Your task to perform on an android device: Search for "asus zenbook" on ebay.com, select the first entry, and add it to the cart. Image 0: 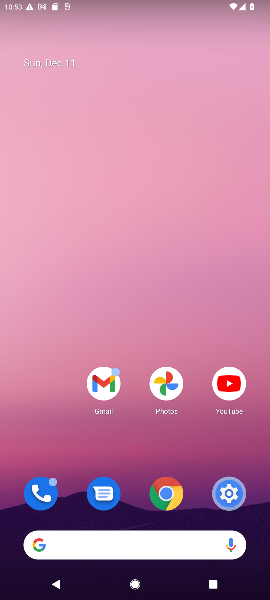
Step 0: click (123, 533)
Your task to perform on an android device: Search for "asus zenbook" on ebay.com, select the first entry, and add it to the cart. Image 1: 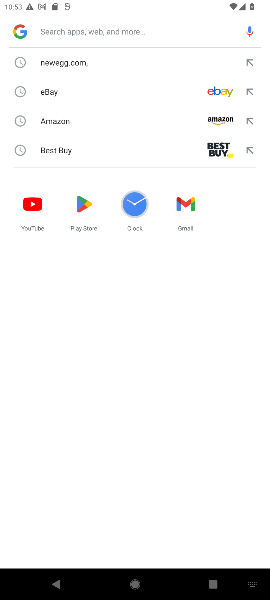
Step 1: type "ebay.com"
Your task to perform on an android device: Search for "asus zenbook" on ebay.com, select the first entry, and add it to the cart. Image 2: 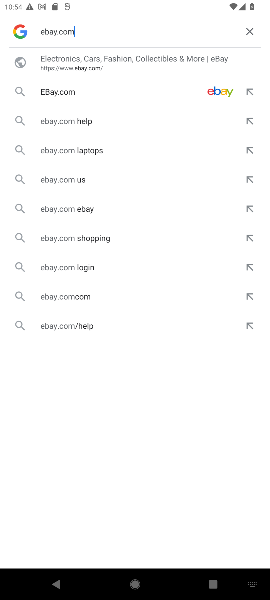
Step 2: click (87, 57)
Your task to perform on an android device: Search for "asus zenbook" on ebay.com, select the first entry, and add it to the cart. Image 3: 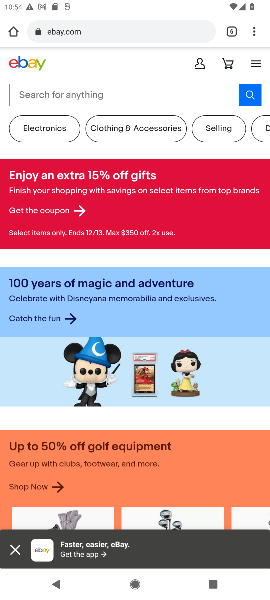
Step 3: click (118, 96)
Your task to perform on an android device: Search for "asus zenbook" on ebay.com, select the first entry, and add it to the cart. Image 4: 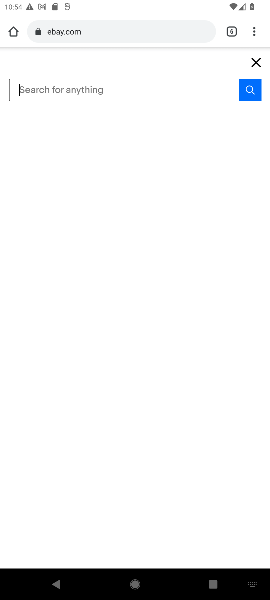
Step 4: type "asus zenbook"
Your task to perform on an android device: Search for "asus zenbook" on ebay.com, select the first entry, and add it to the cart. Image 5: 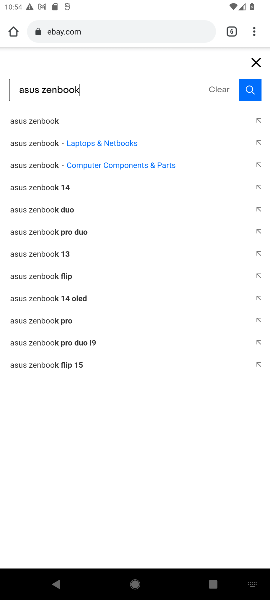
Step 5: click (244, 97)
Your task to perform on an android device: Search for "asus zenbook" on ebay.com, select the first entry, and add it to the cart. Image 6: 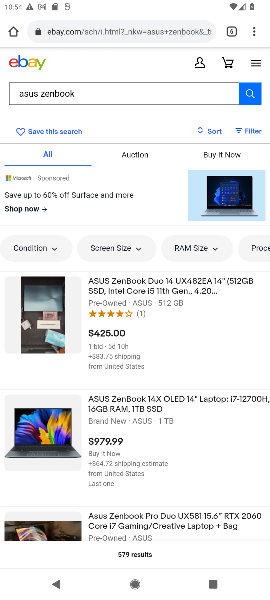
Step 6: click (108, 298)
Your task to perform on an android device: Search for "asus zenbook" on ebay.com, select the first entry, and add it to the cart. Image 7: 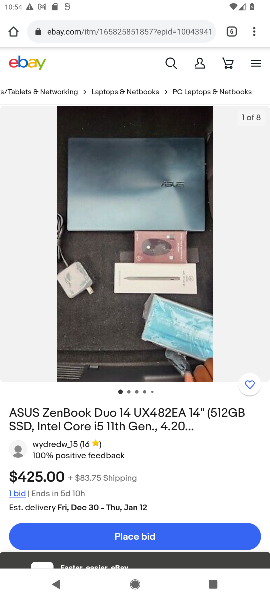
Step 7: drag from (160, 474) to (158, 317)
Your task to perform on an android device: Search for "asus zenbook" on ebay.com, select the first entry, and add it to the cart. Image 8: 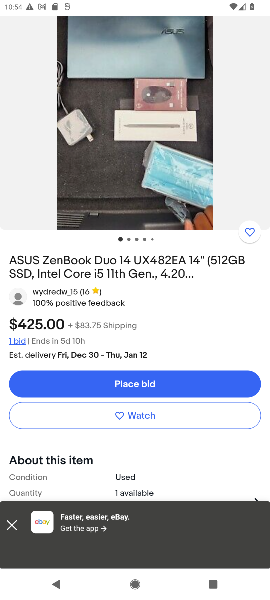
Step 8: click (205, 393)
Your task to perform on an android device: Search for "asus zenbook" on ebay.com, select the first entry, and add it to the cart. Image 9: 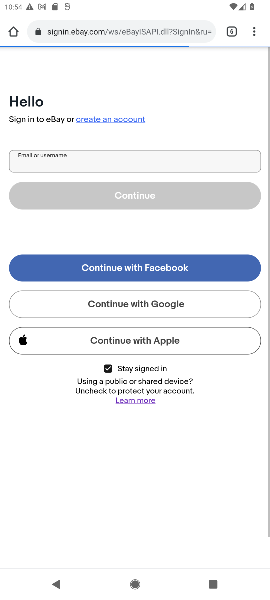
Step 9: task complete